Your task to perform on an android device: open chrome privacy settings Image 0: 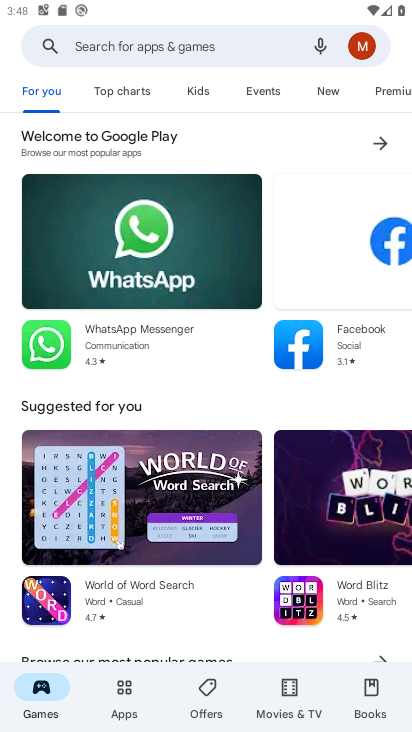
Step 0: press home button
Your task to perform on an android device: open chrome privacy settings Image 1: 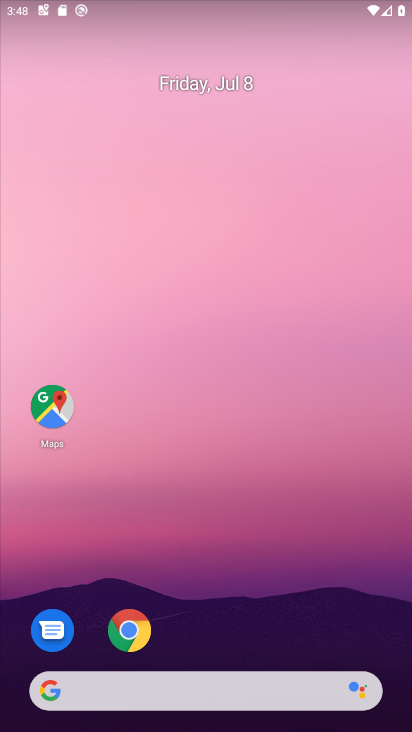
Step 1: drag from (340, 596) to (327, 46)
Your task to perform on an android device: open chrome privacy settings Image 2: 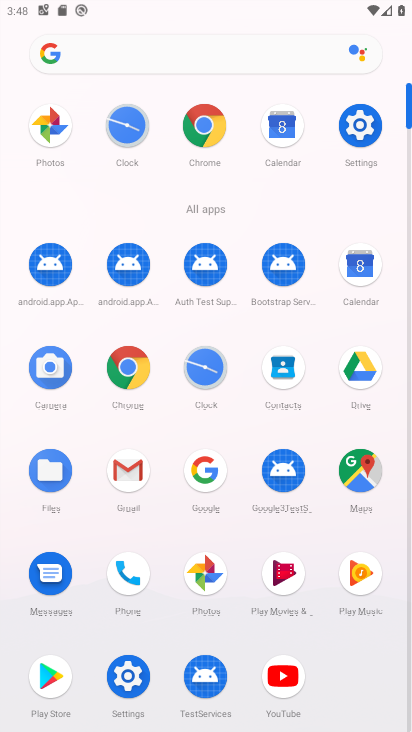
Step 2: click (205, 128)
Your task to perform on an android device: open chrome privacy settings Image 3: 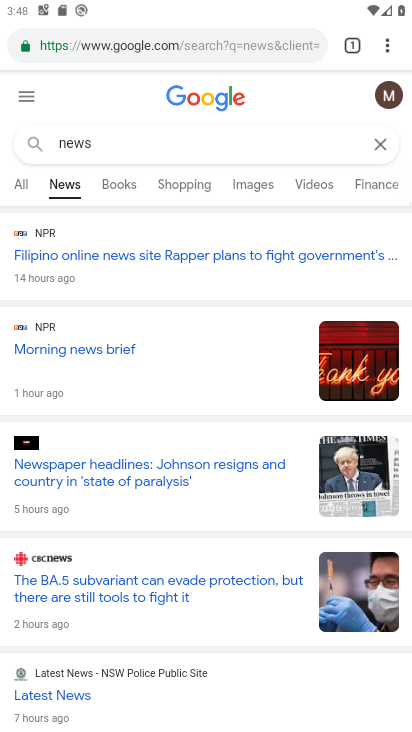
Step 3: click (388, 43)
Your task to perform on an android device: open chrome privacy settings Image 4: 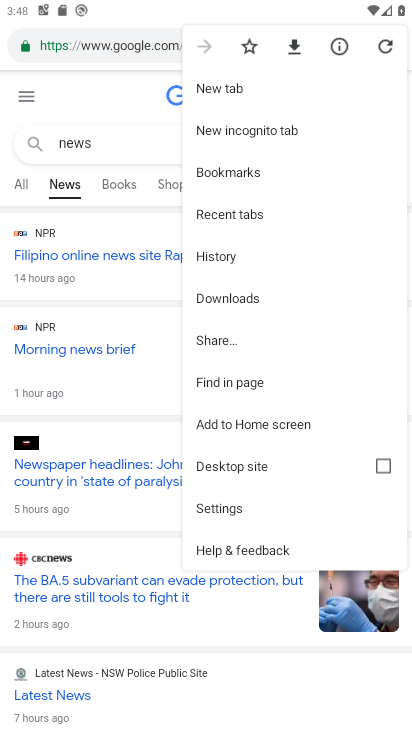
Step 4: click (242, 507)
Your task to perform on an android device: open chrome privacy settings Image 5: 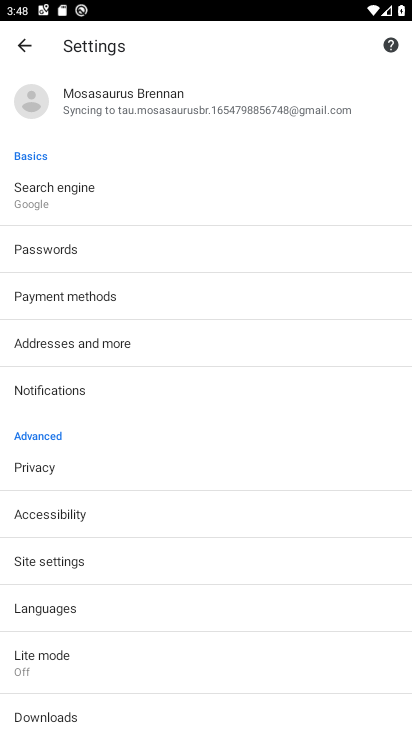
Step 5: drag from (115, 622) to (203, 201)
Your task to perform on an android device: open chrome privacy settings Image 6: 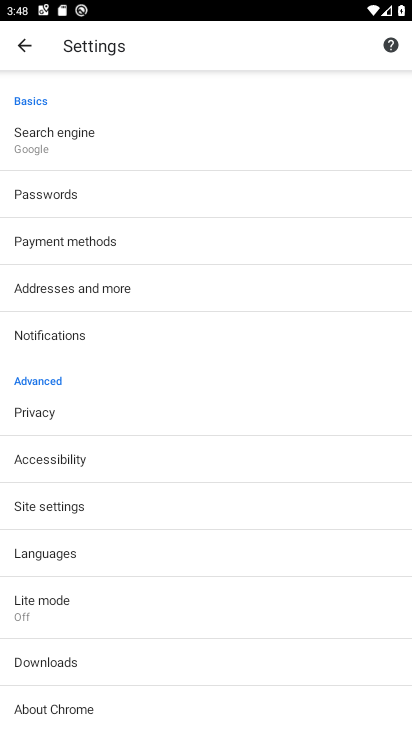
Step 6: click (49, 416)
Your task to perform on an android device: open chrome privacy settings Image 7: 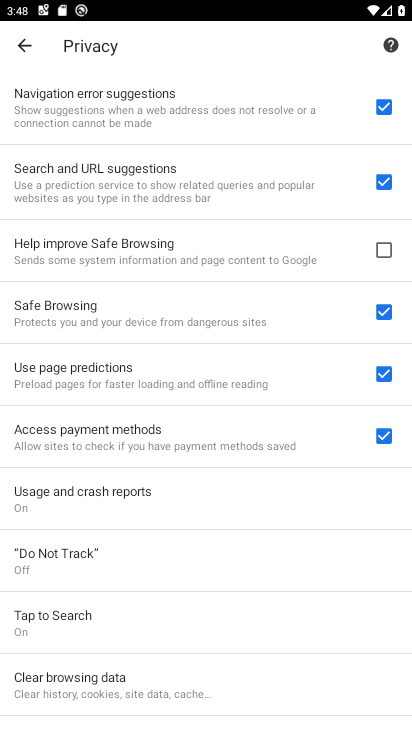
Step 7: task complete